Your task to perform on an android device: Open internet settings Image 0: 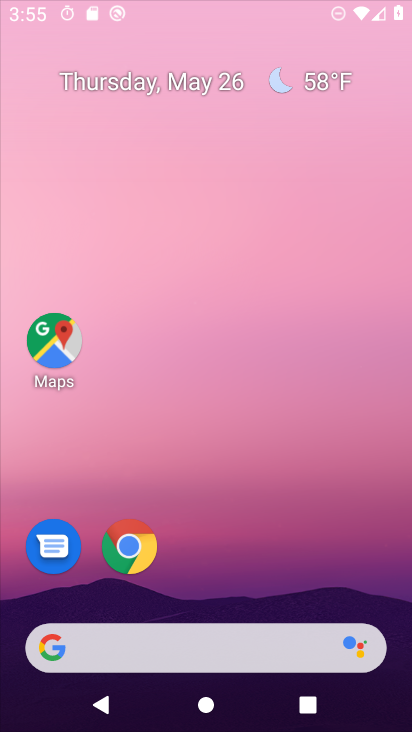
Step 0: press home button
Your task to perform on an android device: Open internet settings Image 1: 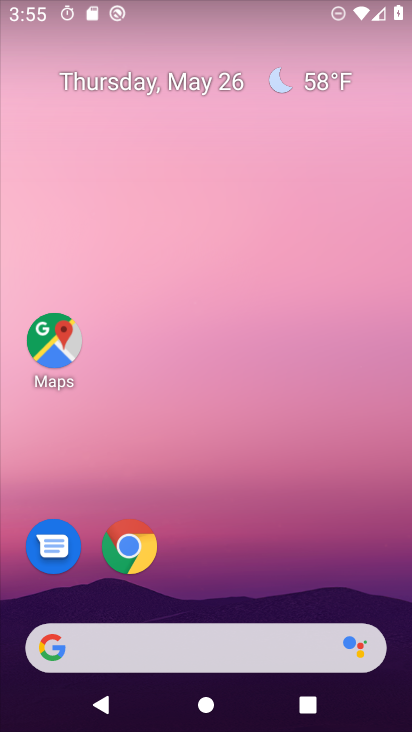
Step 1: drag from (214, 599) to (250, 30)
Your task to perform on an android device: Open internet settings Image 2: 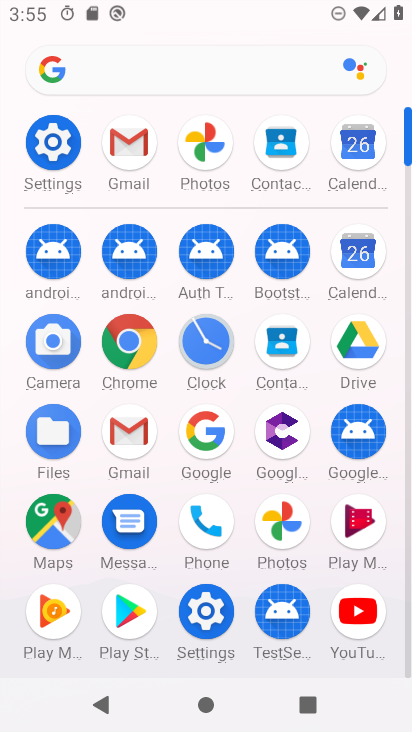
Step 2: click (49, 137)
Your task to perform on an android device: Open internet settings Image 3: 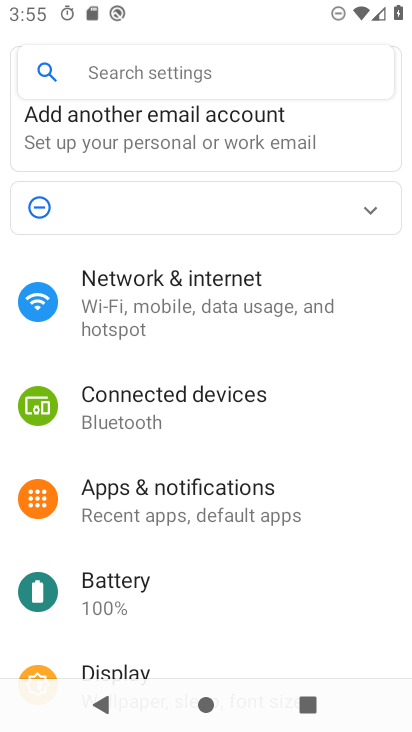
Step 3: click (158, 300)
Your task to perform on an android device: Open internet settings Image 4: 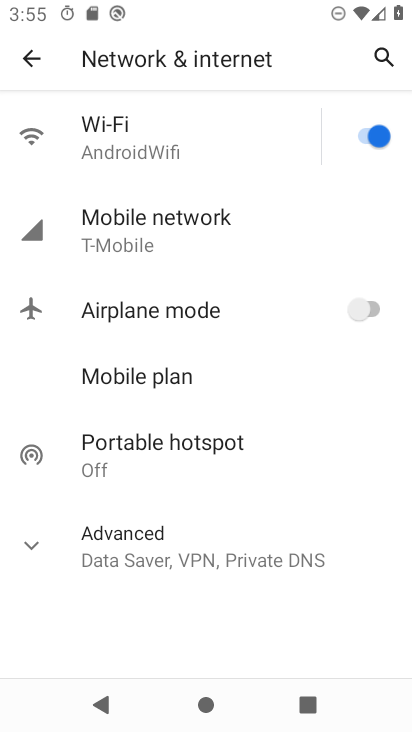
Step 4: click (35, 541)
Your task to perform on an android device: Open internet settings Image 5: 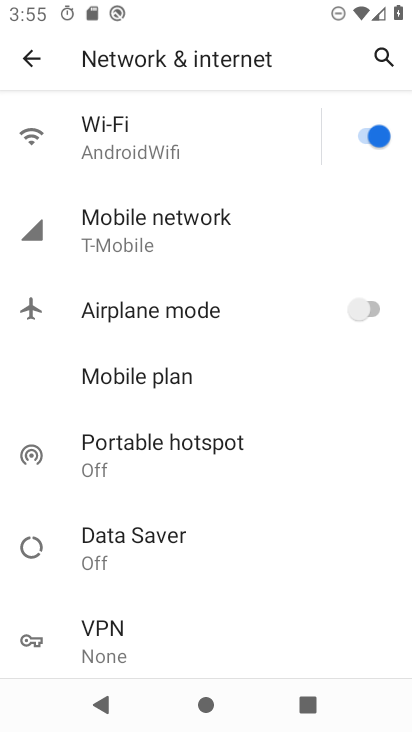
Step 5: task complete